Your task to perform on an android device: turn off location history Image 0: 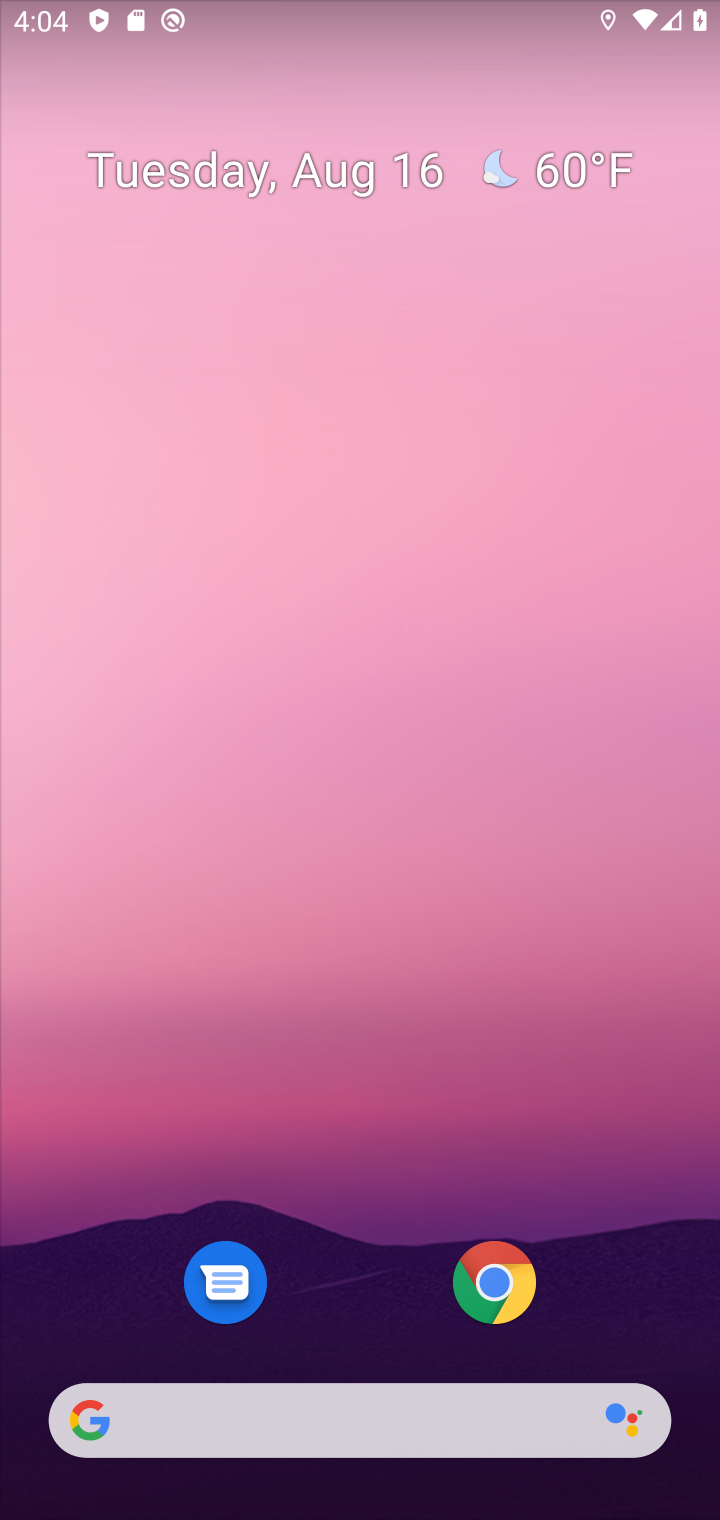
Step 0: drag from (323, 1262) to (363, 190)
Your task to perform on an android device: turn off location history Image 1: 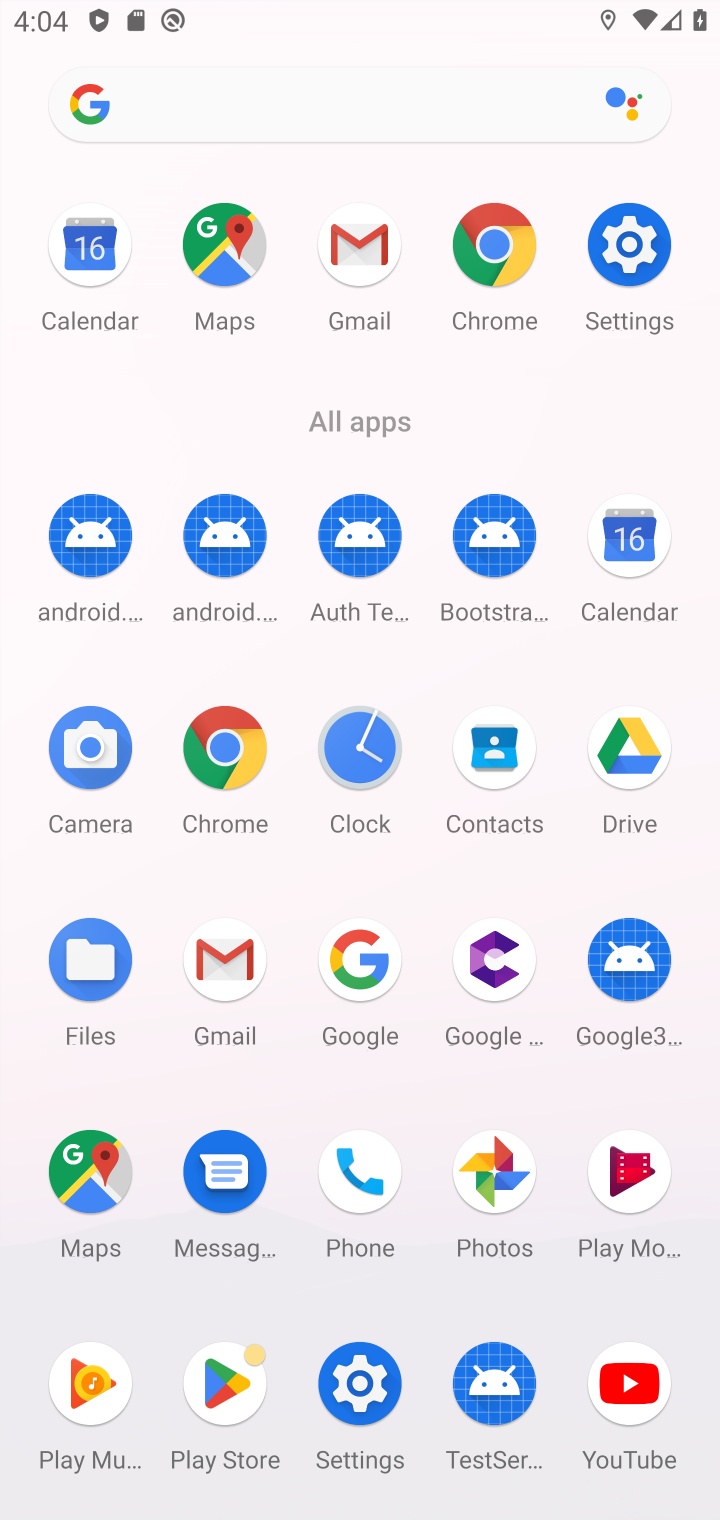
Step 1: click (641, 234)
Your task to perform on an android device: turn off location history Image 2: 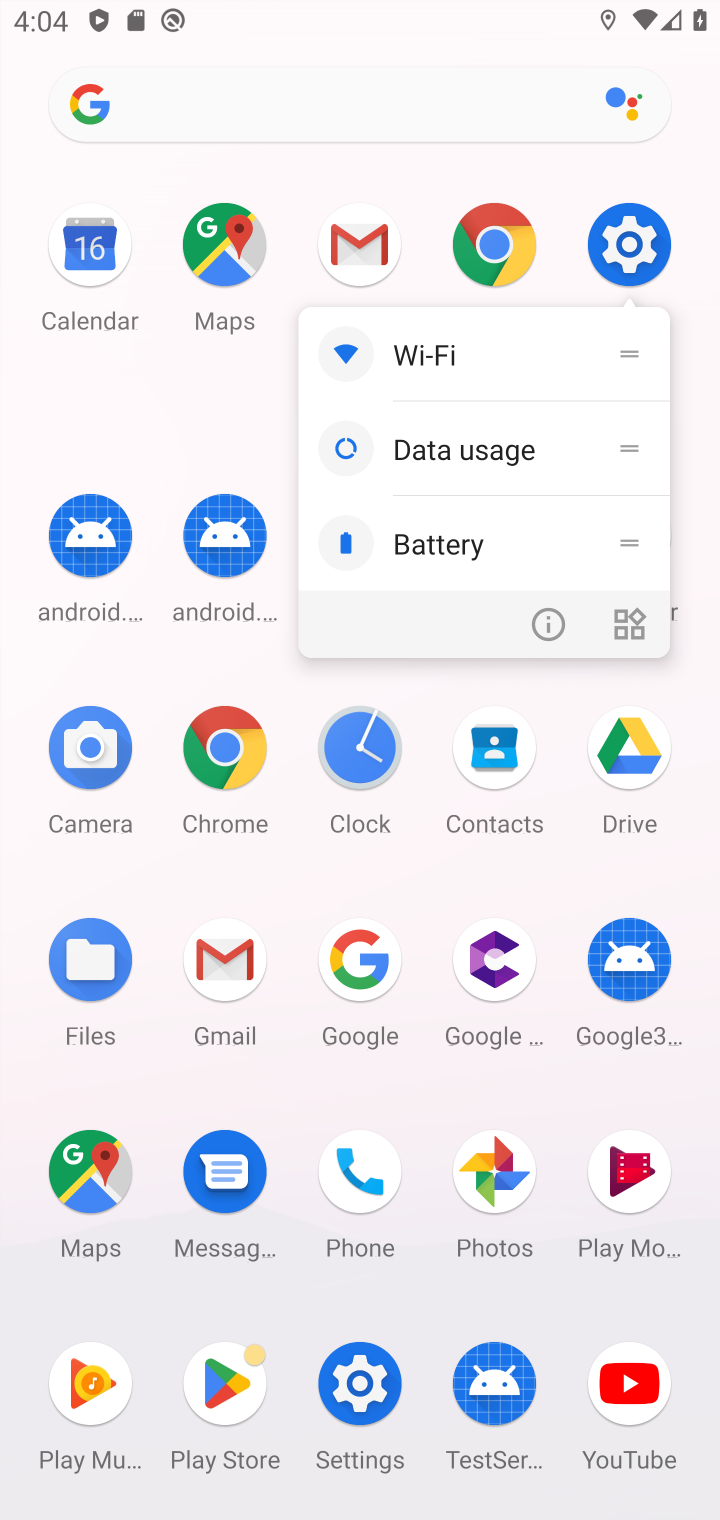
Step 2: click (641, 234)
Your task to perform on an android device: turn off location history Image 3: 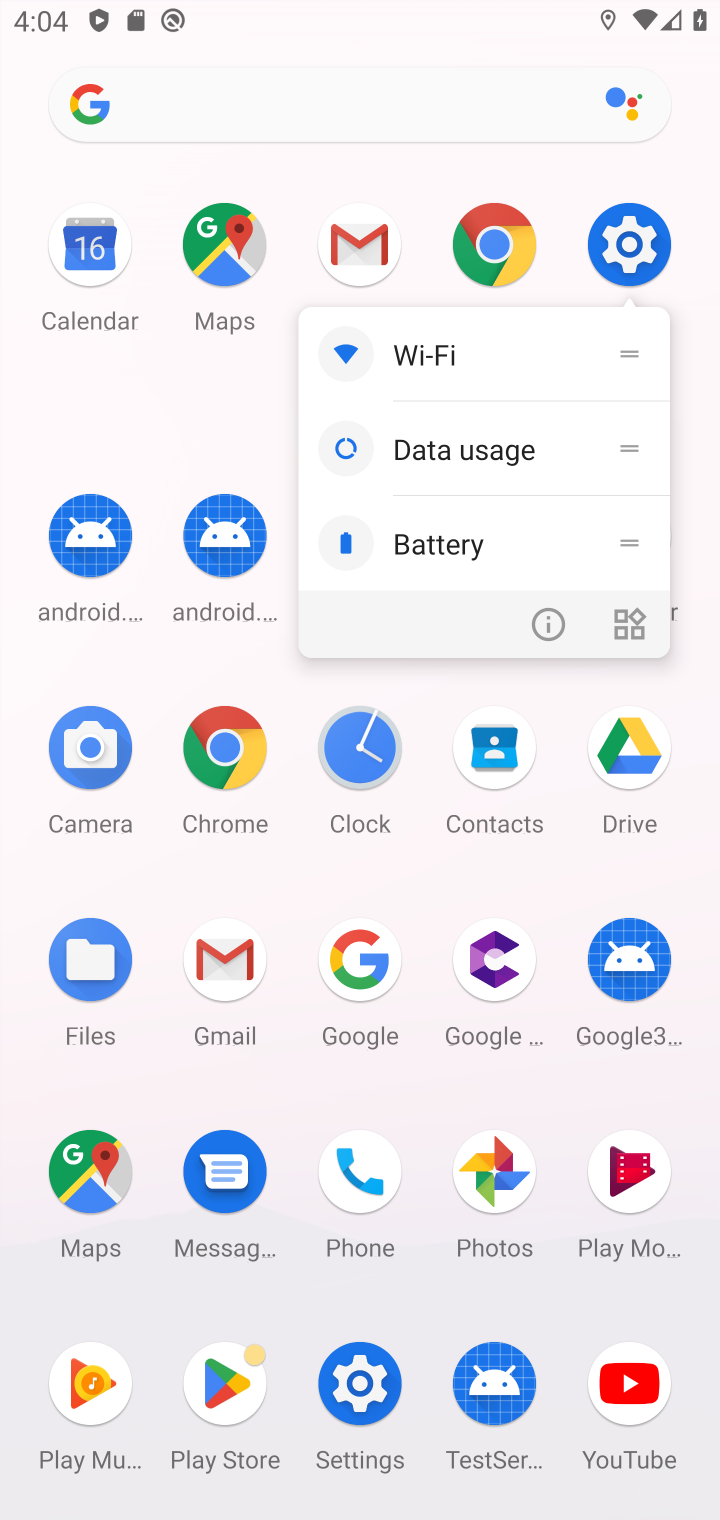
Step 3: click (641, 234)
Your task to perform on an android device: turn off location history Image 4: 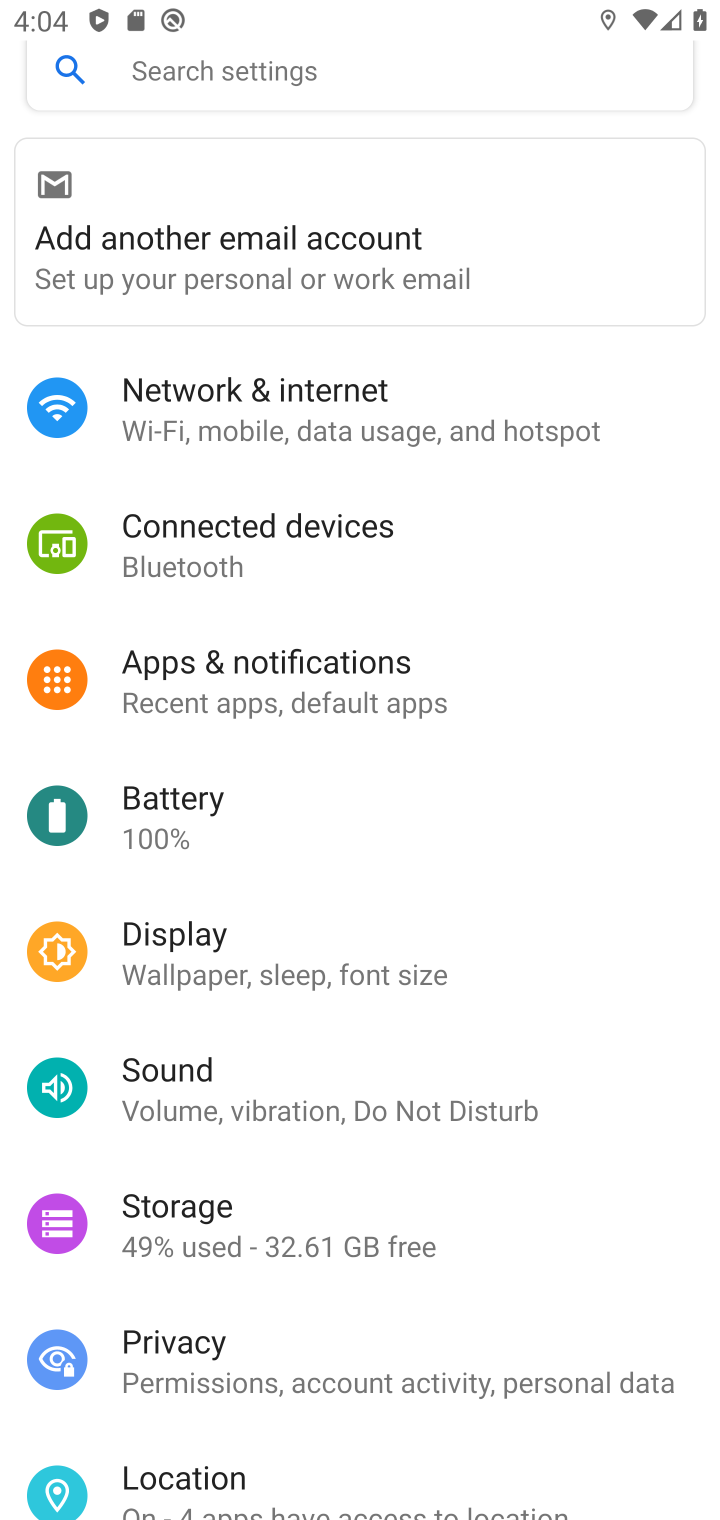
Step 4: click (273, 1293)
Your task to perform on an android device: turn off location history Image 5: 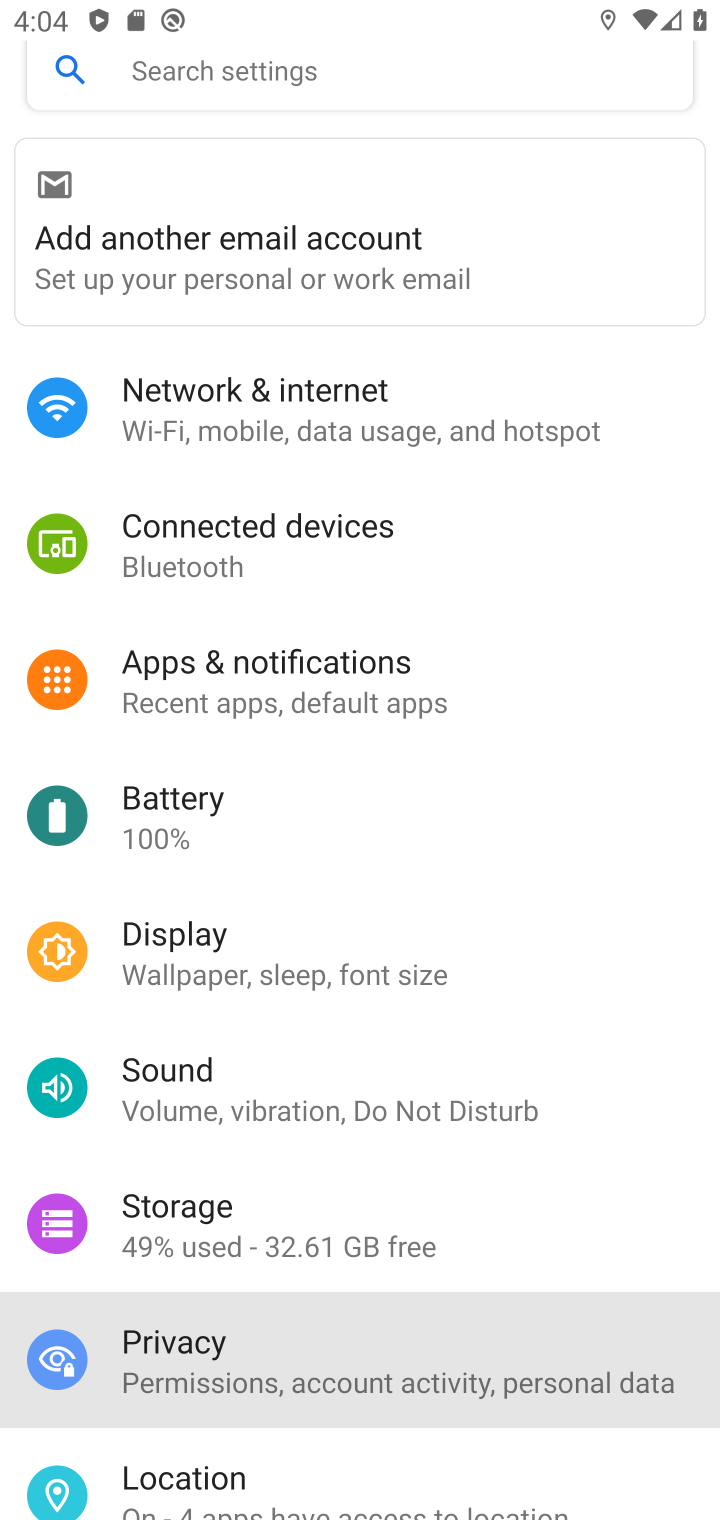
Step 5: drag from (273, 1293) to (556, 629)
Your task to perform on an android device: turn off location history Image 6: 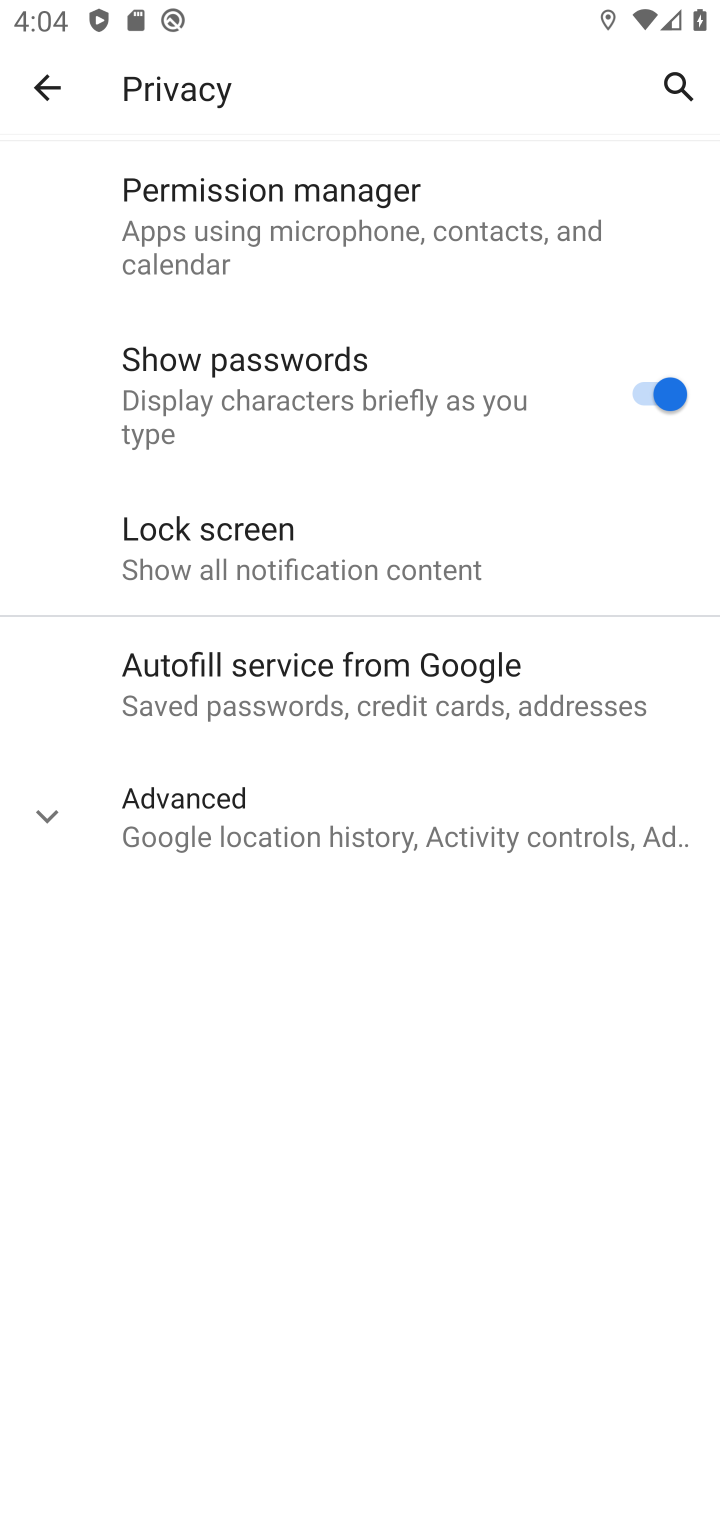
Step 6: press back button
Your task to perform on an android device: turn off location history Image 7: 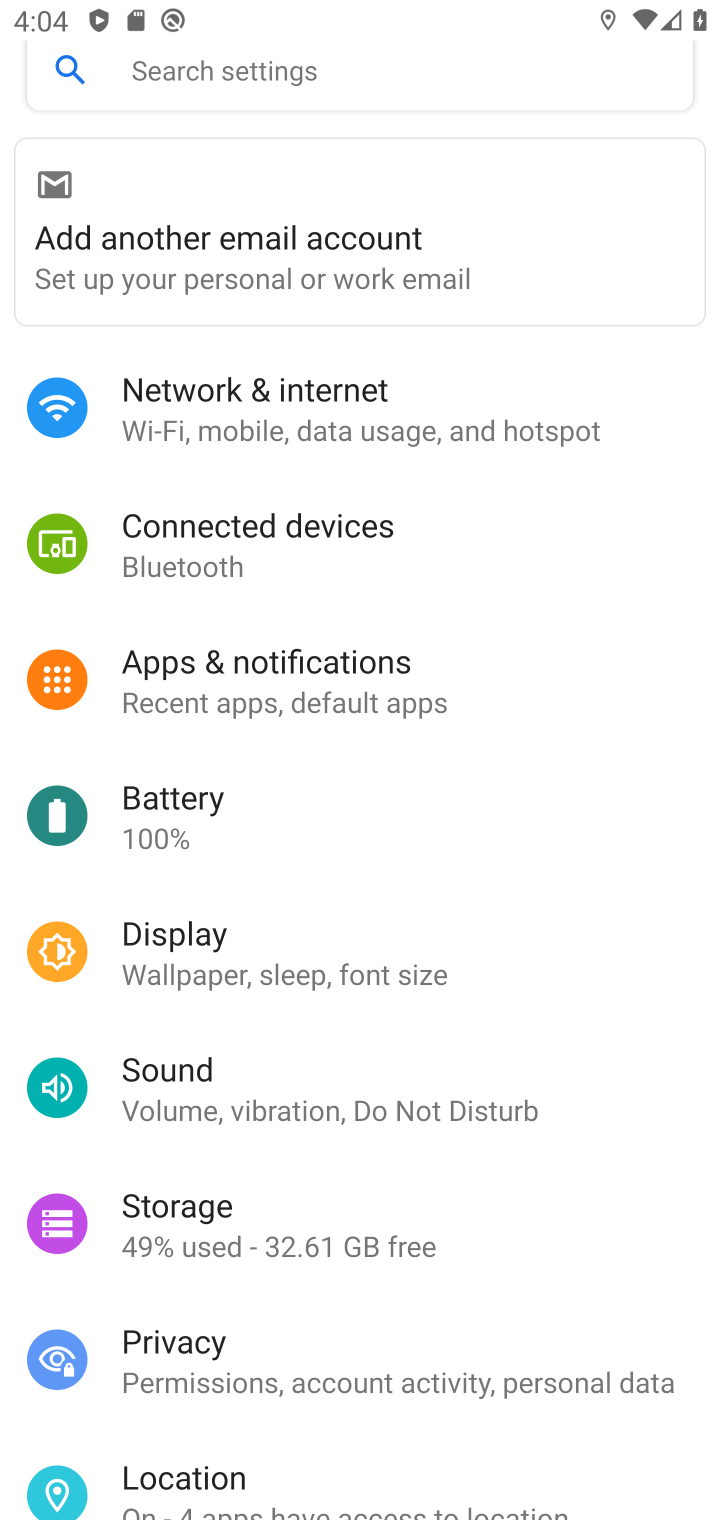
Step 7: click (195, 1479)
Your task to perform on an android device: turn off location history Image 8: 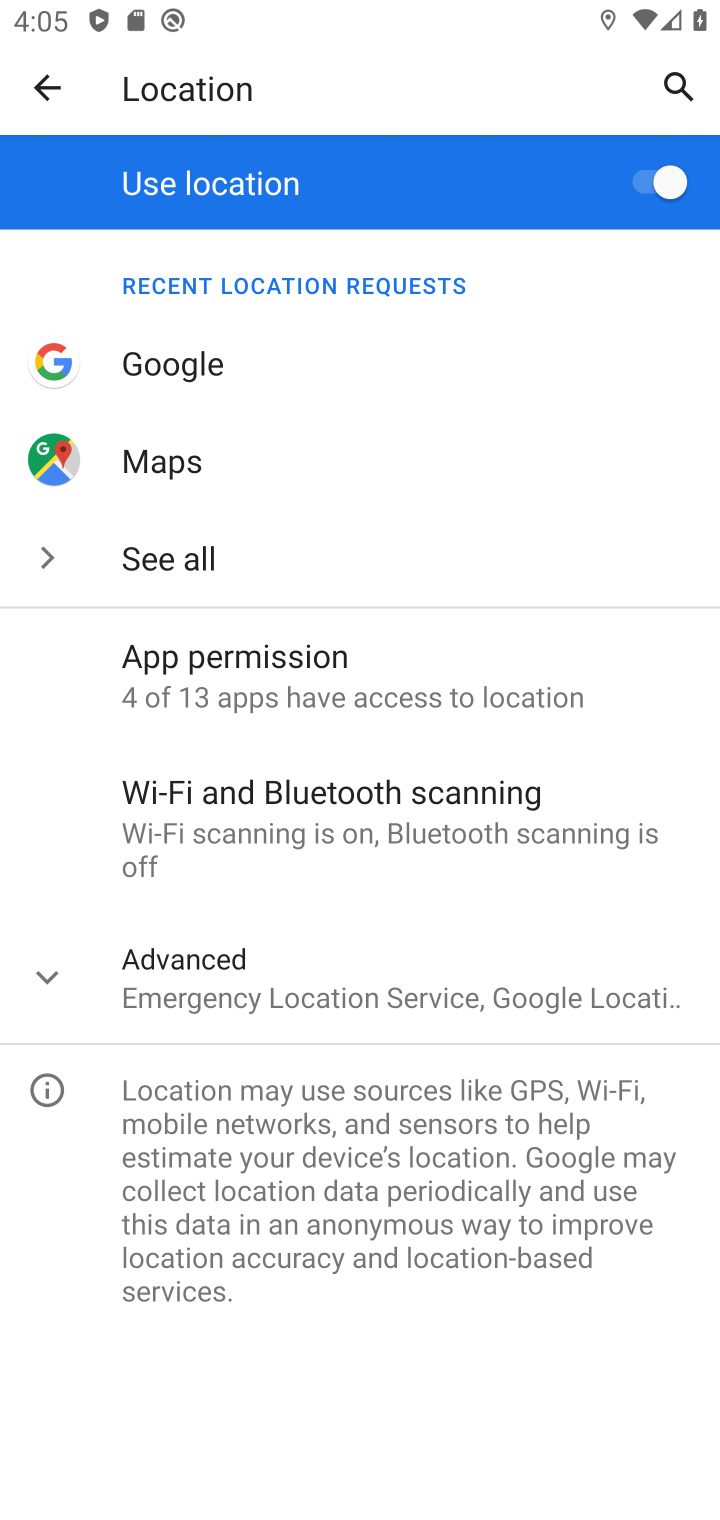
Step 8: click (305, 1005)
Your task to perform on an android device: turn off location history Image 9: 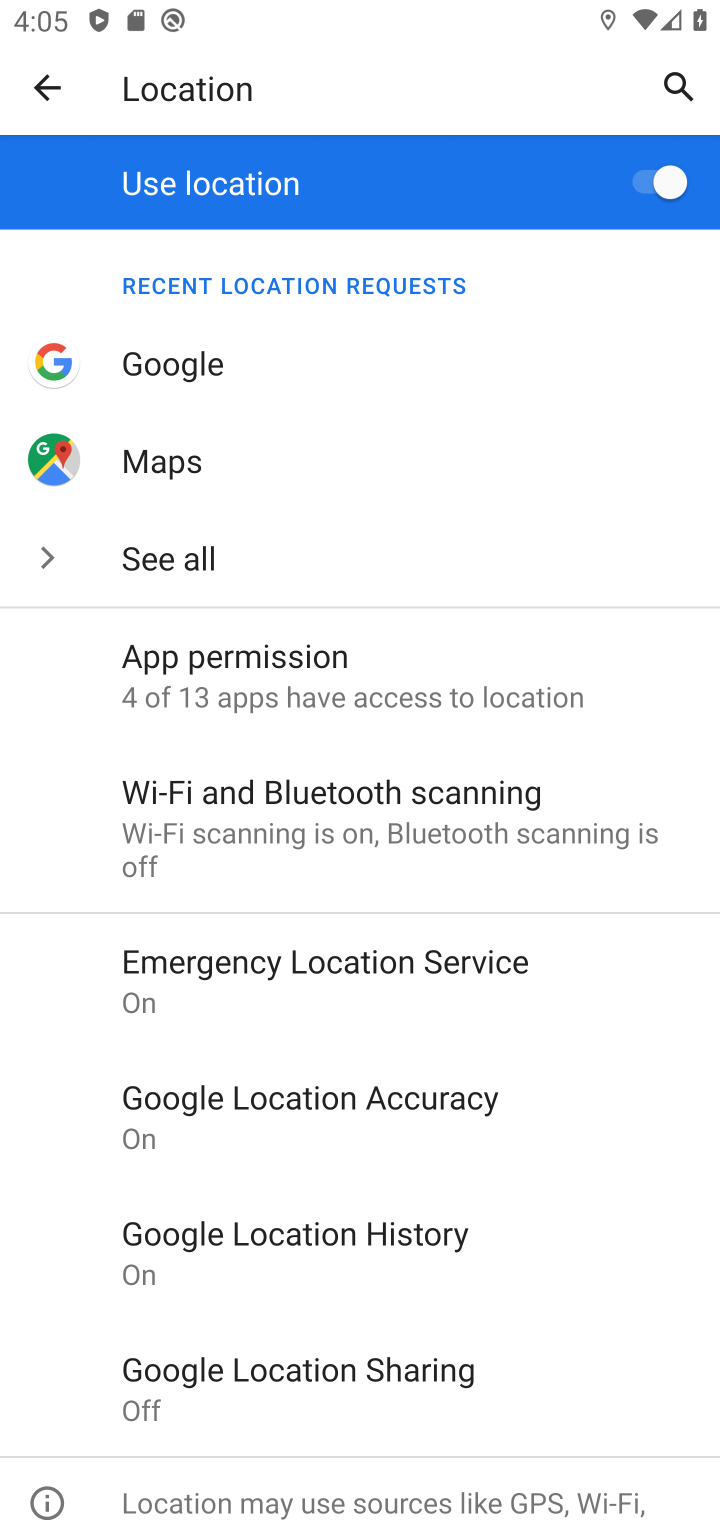
Step 9: click (312, 1234)
Your task to perform on an android device: turn off location history Image 10: 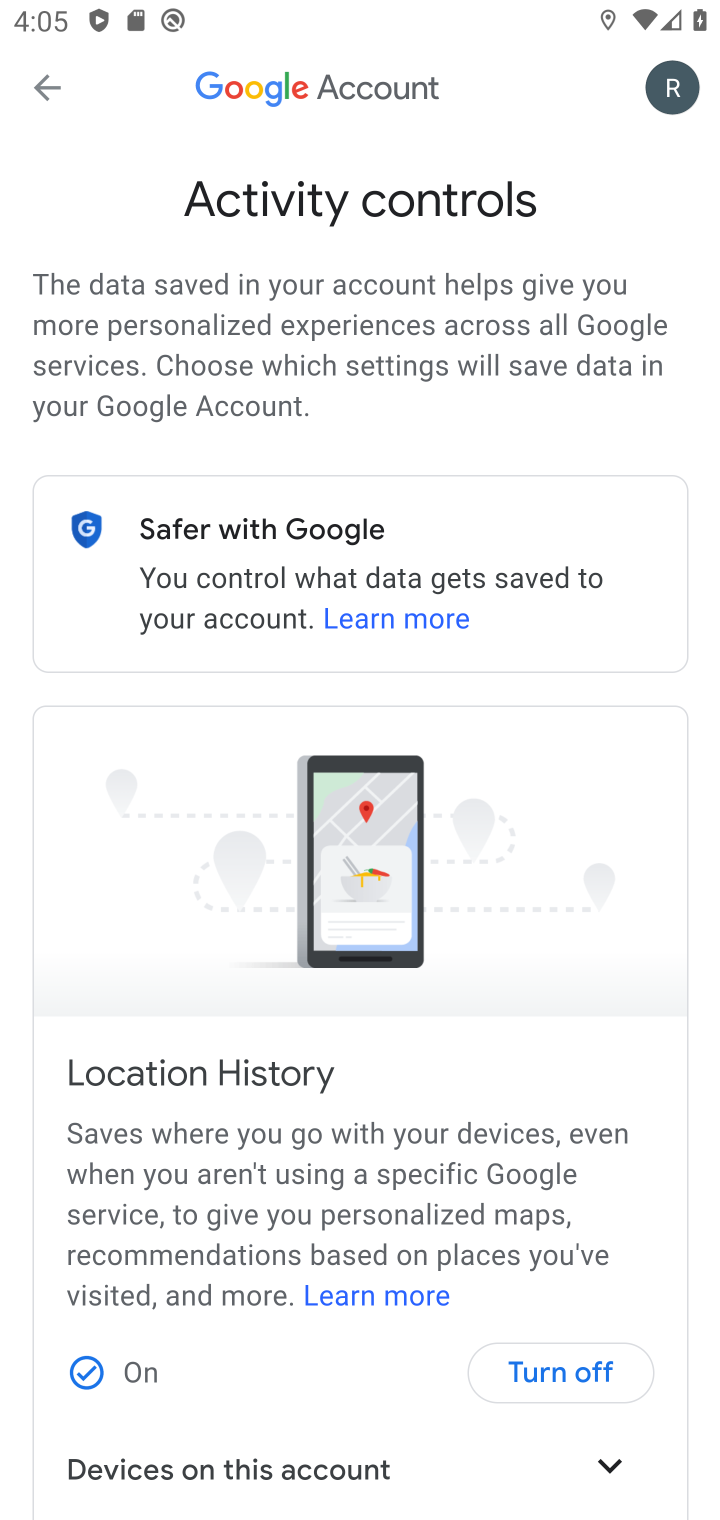
Step 10: click (576, 1359)
Your task to perform on an android device: turn off location history Image 11: 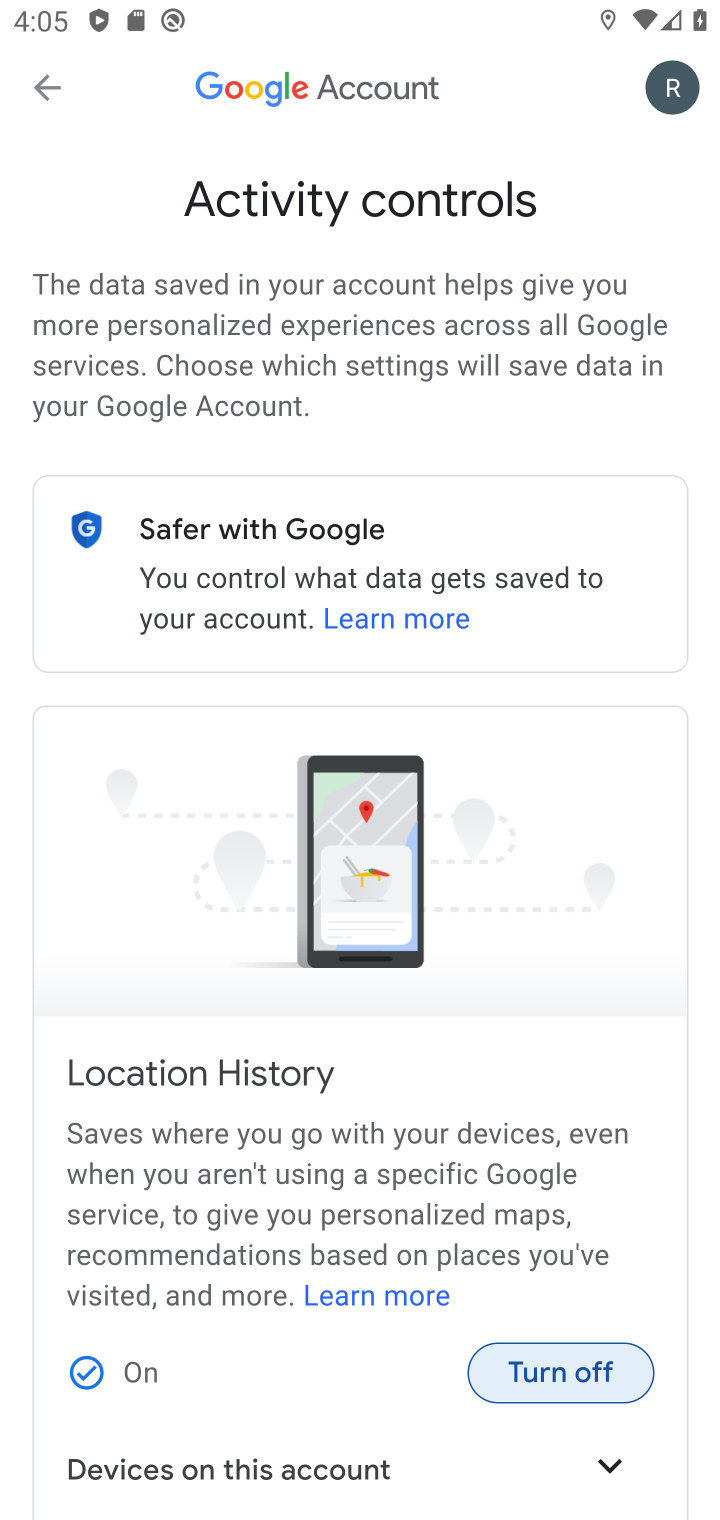
Step 11: click (537, 1375)
Your task to perform on an android device: turn off location history Image 12: 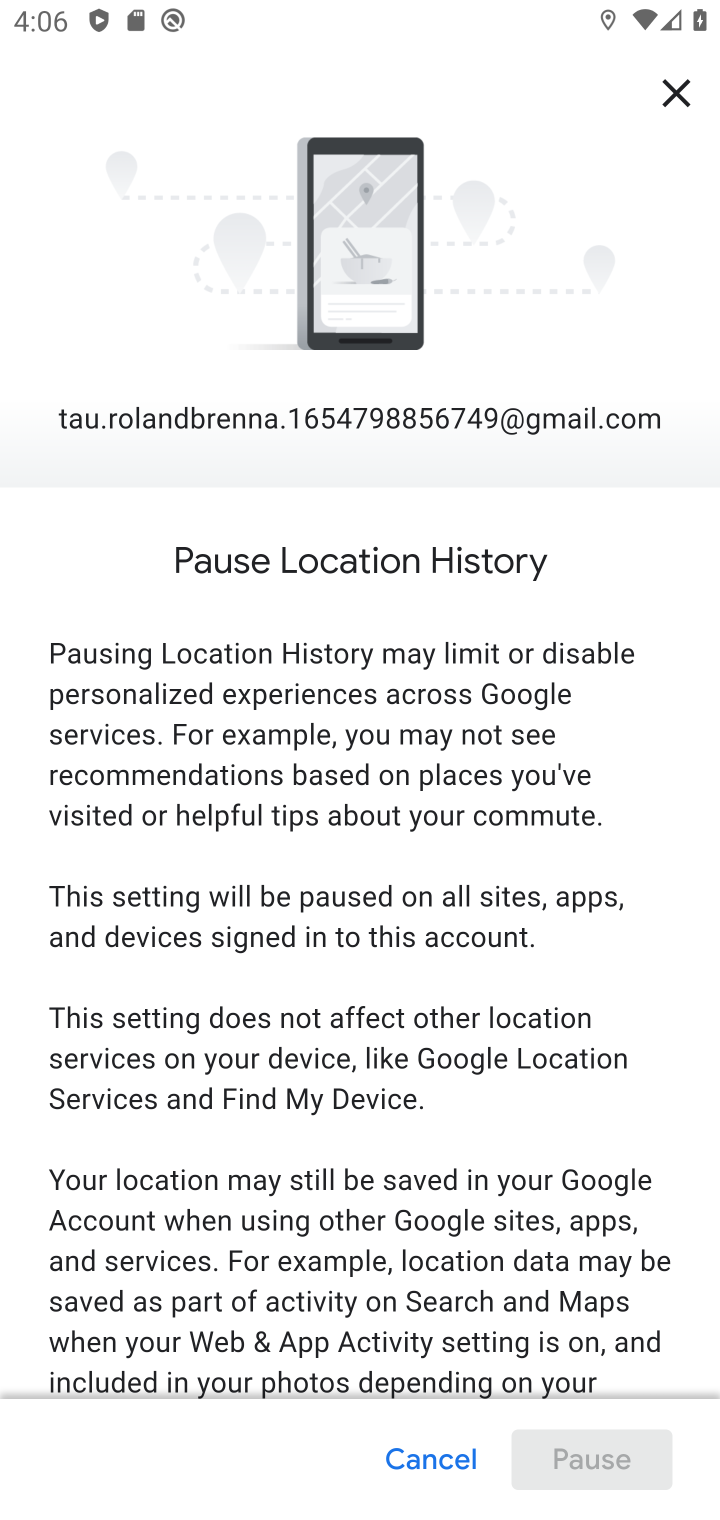
Step 12: drag from (509, 1352) to (643, 80)
Your task to perform on an android device: turn off location history Image 13: 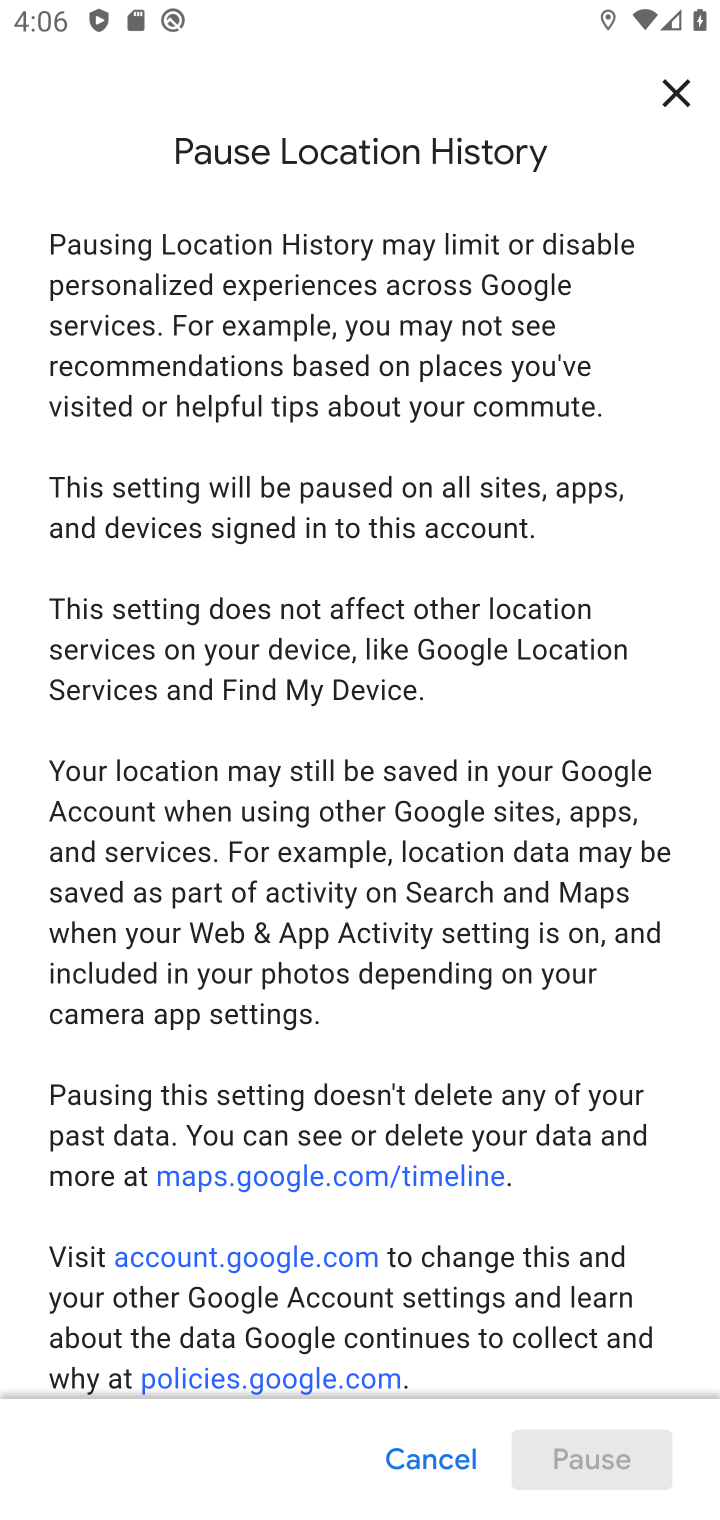
Step 13: drag from (385, 1257) to (636, 0)
Your task to perform on an android device: turn off location history Image 14: 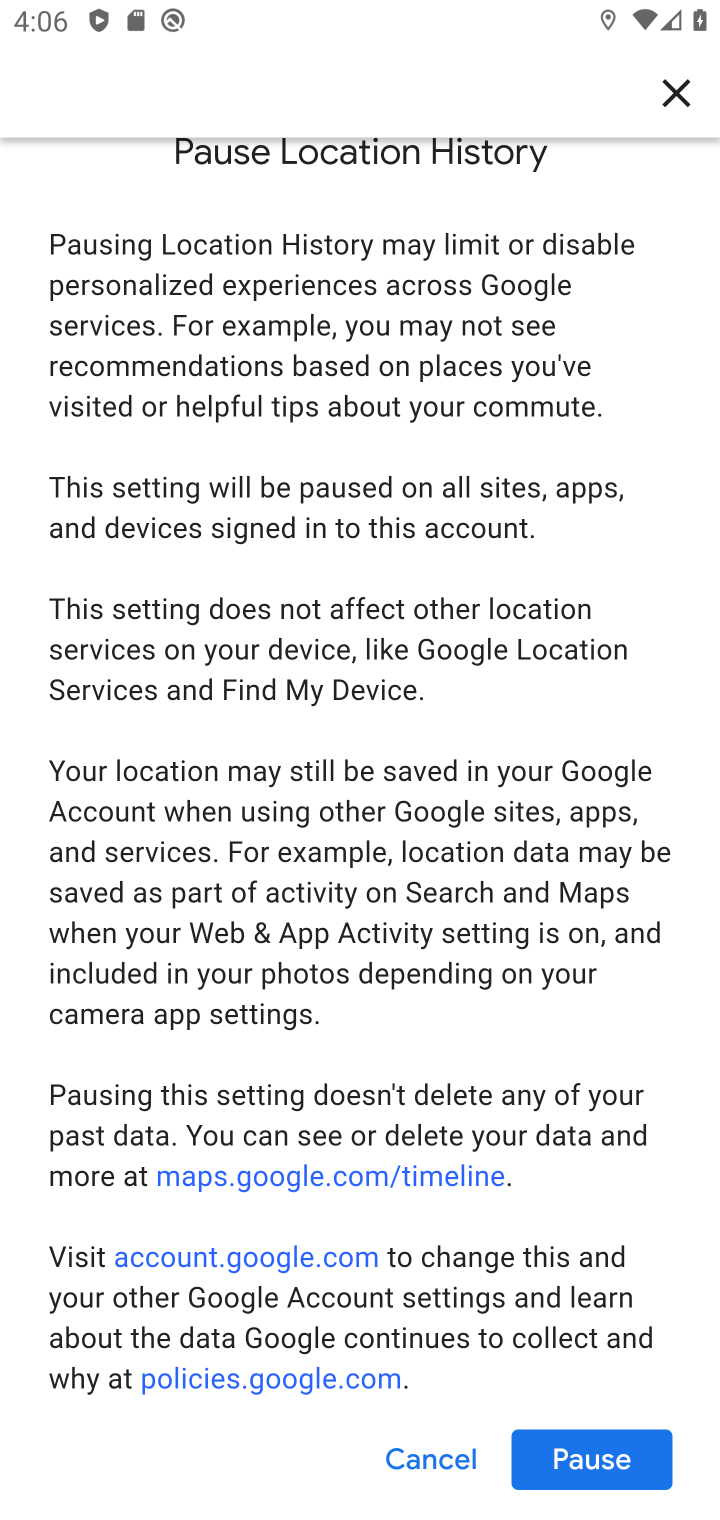
Step 14: click (588, 1459)
Your task to perform on an android device: turn off location history Image 15: 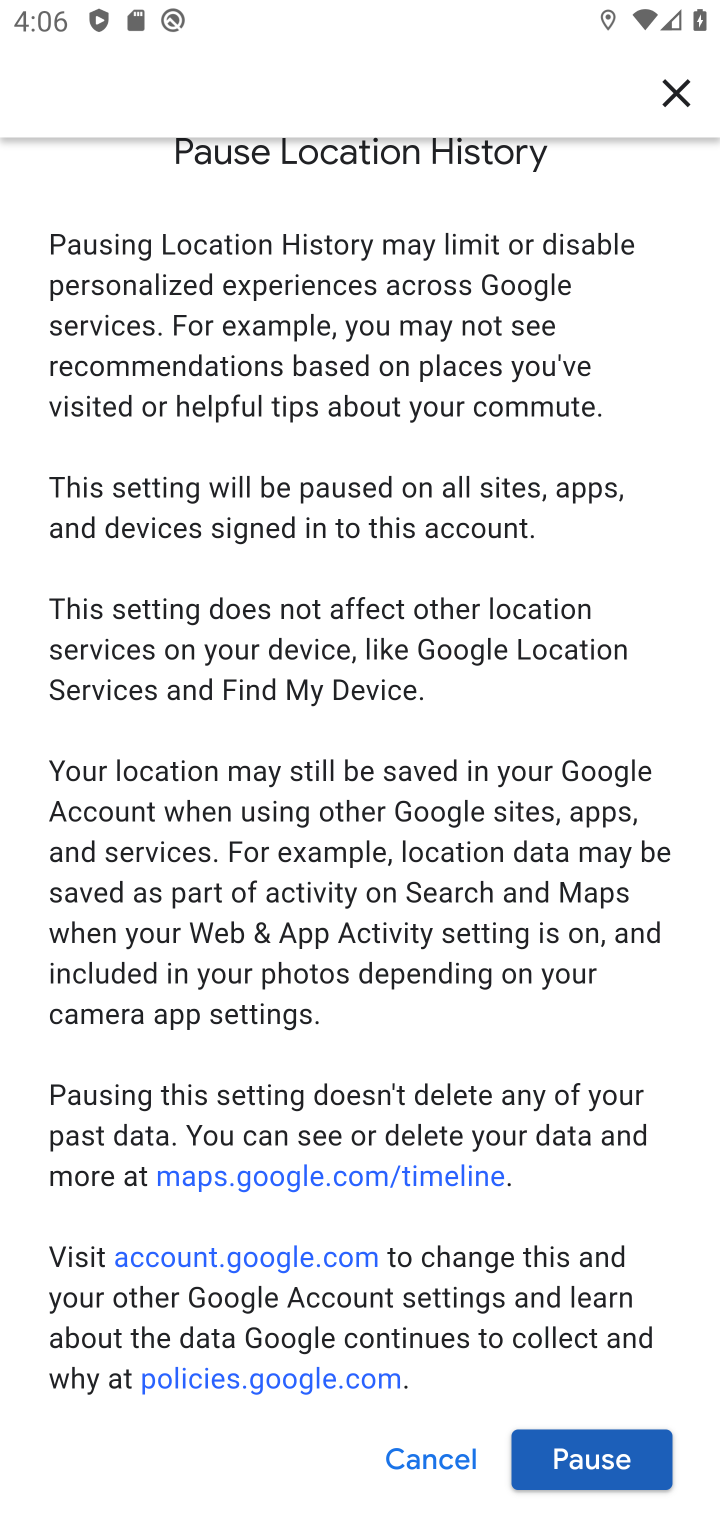
Step 15: click (587, 1455)
Your task to perform on an android device: turn off location history Image 16: 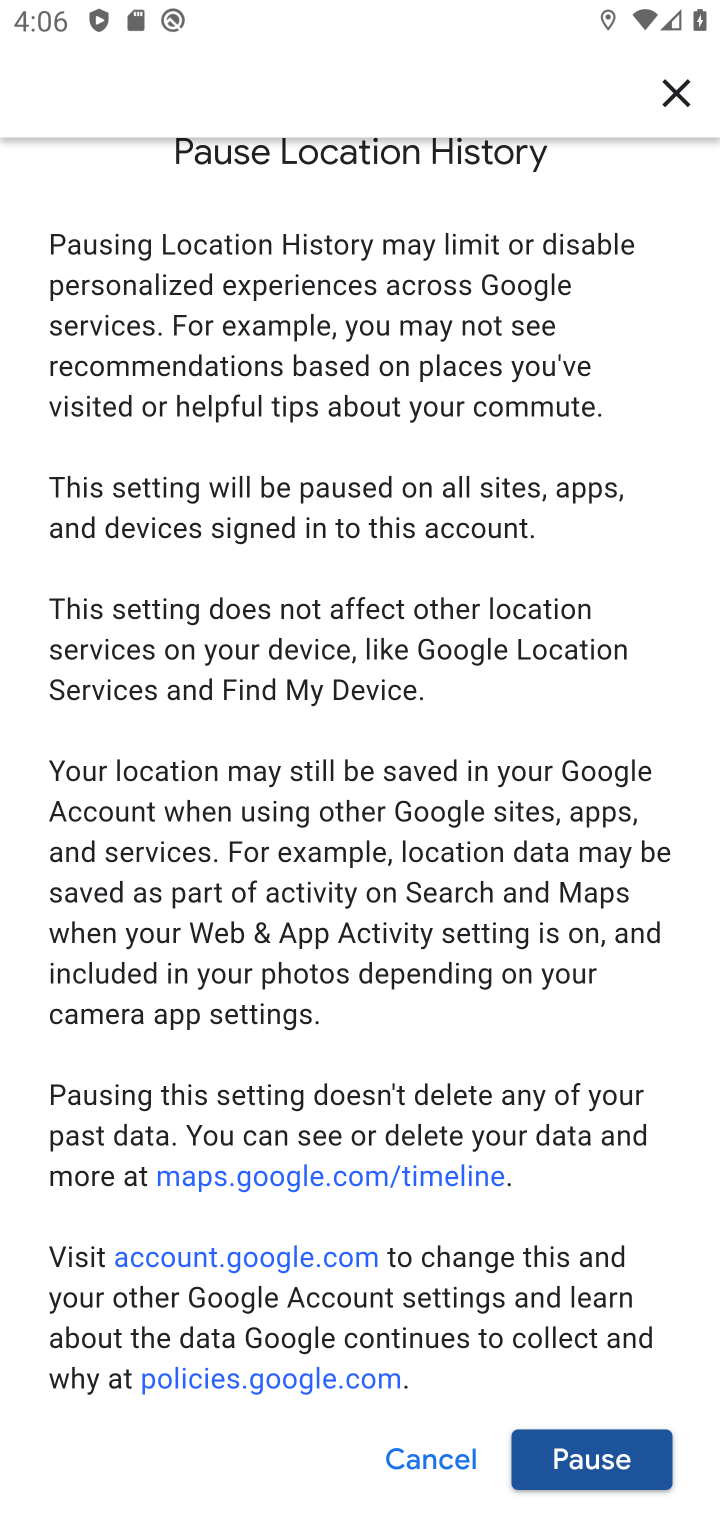
Step 16: task complete